Your task to perform on an android device: open device folders in google photos Image 0: 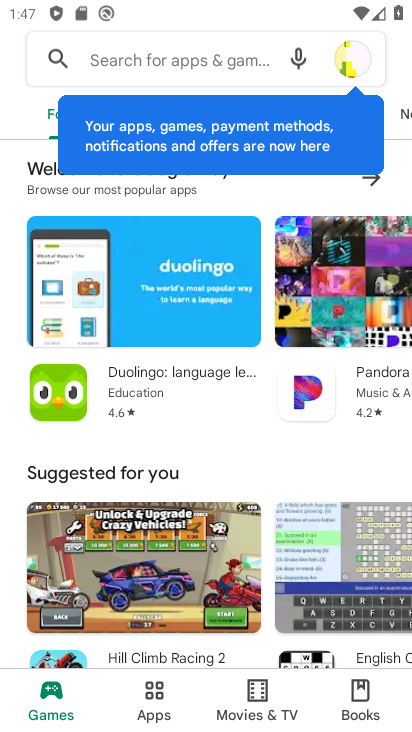
Step 0: press back button
Your task to perform on an android device: open device folders in google photos Image 1: 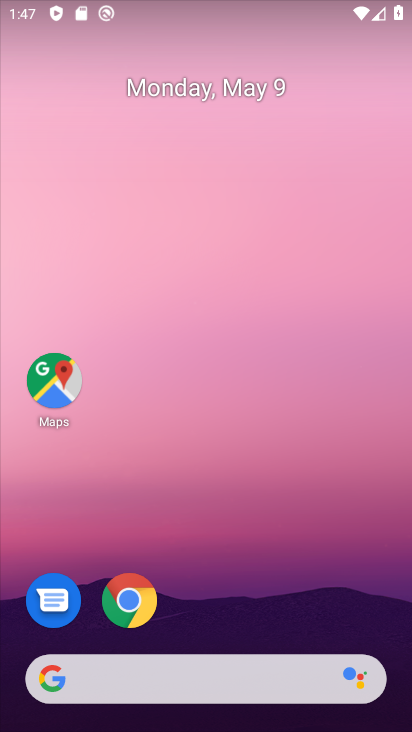
Step 1: drag from (234, 537) to (159, 49)
Your task to perform on an android device: open device folders in google photos Image 2: 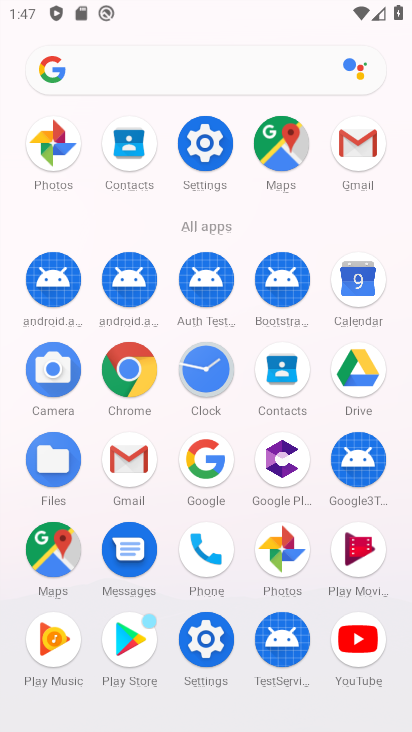
Step 2: click (279, 550)
Your task to perform on an android device: open device folders in google photos Image 3: 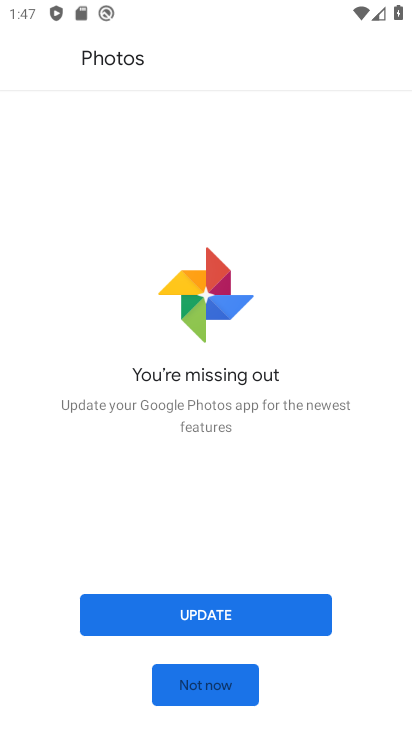
Step 3: click (214, 690)
Your task to perform on an android device: open device folders in google photos Image 4: 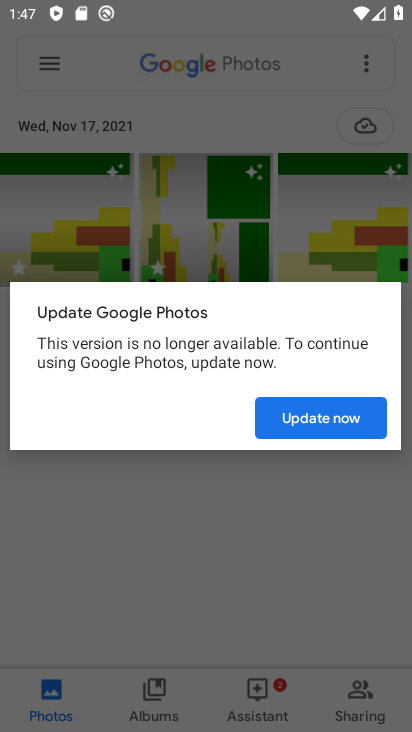
Step 4: click (347, 405)
Your task to perform on an android device: open device folders in google photos Image 5: 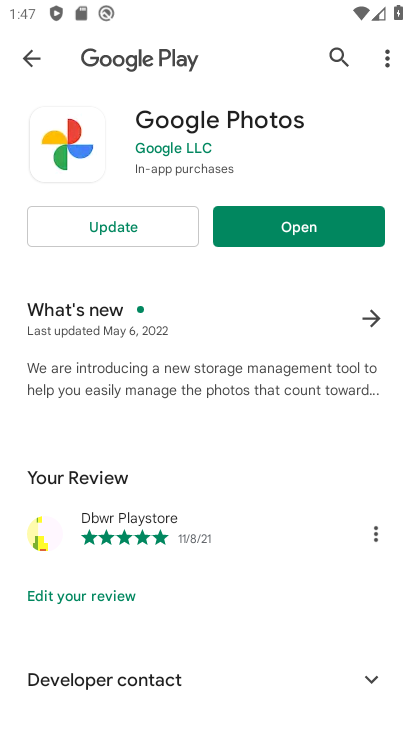
Step 5: click (133, 232)
Your task to perform on an android device: open device folders in google photos Image 6: 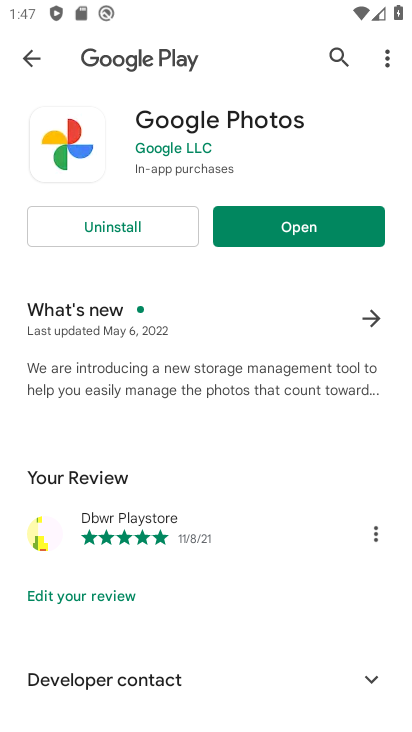
Step 6: click (262, 226)
Your task to perform on an android device: open device folders in google photos Image 7: 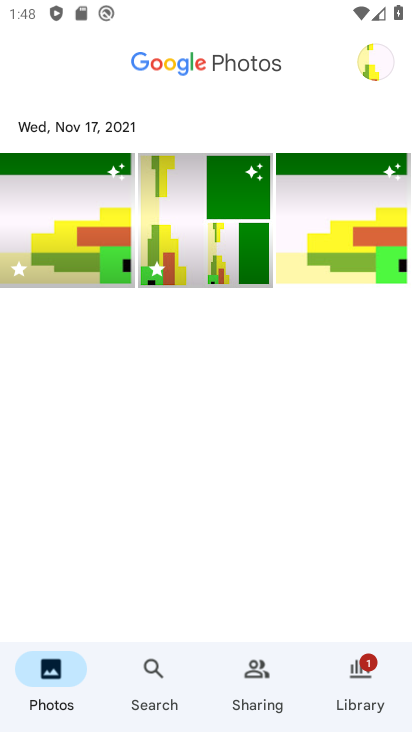
Step 7: click (353, 687)
Your task to perform on an android device: open device folders in google photos Image 8: 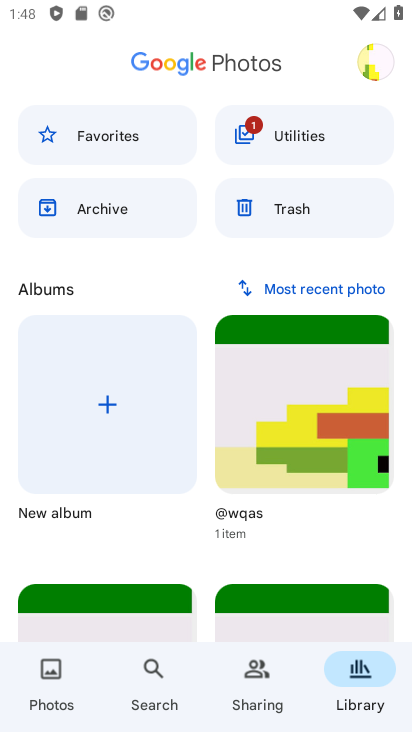
Step 8: click (50, 683)
Your task to perform on an android device: open device folders in google photos Image 9: 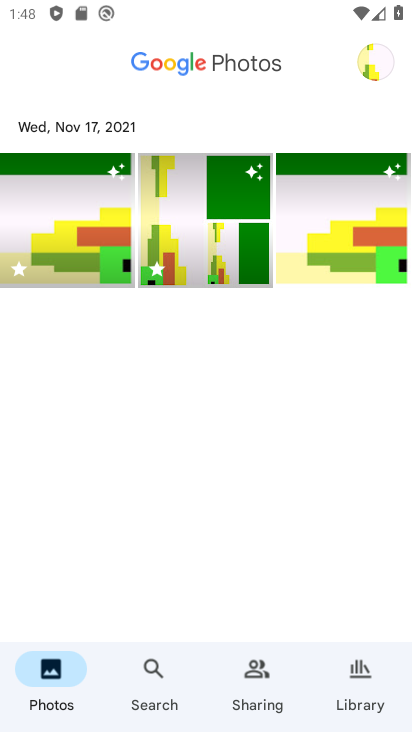
Step 9: click (377, 52)
Your task to perform on an android device: open device folders in google photos Image 10: 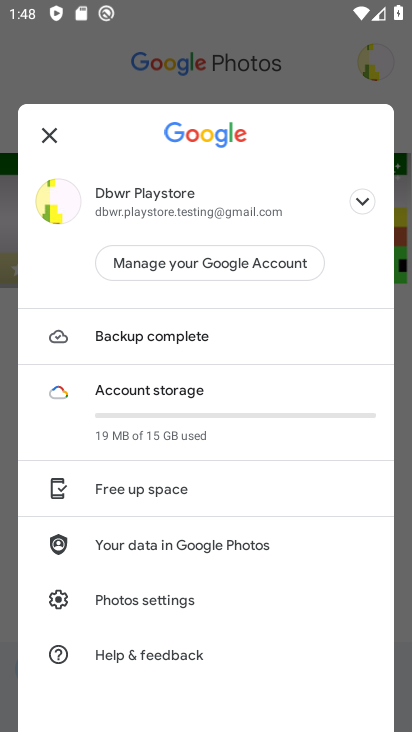
Step 10: click (354, 208)
Your task to perform on an android device: open device folders in google photos Image 11: 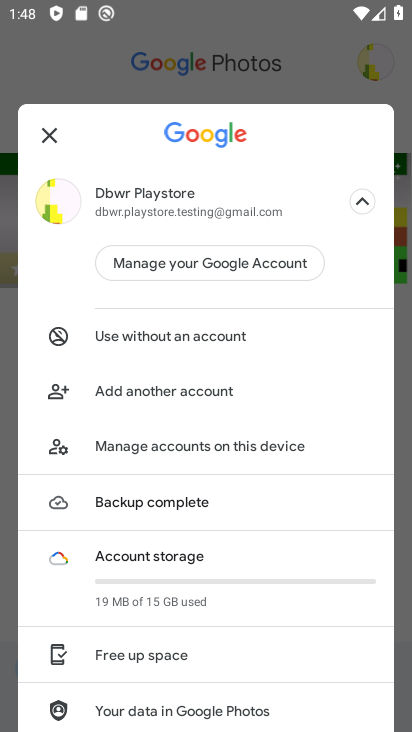
Step 11: click (354, 208)
Your task to perform on an android device: open device folders in google photos Image 12: 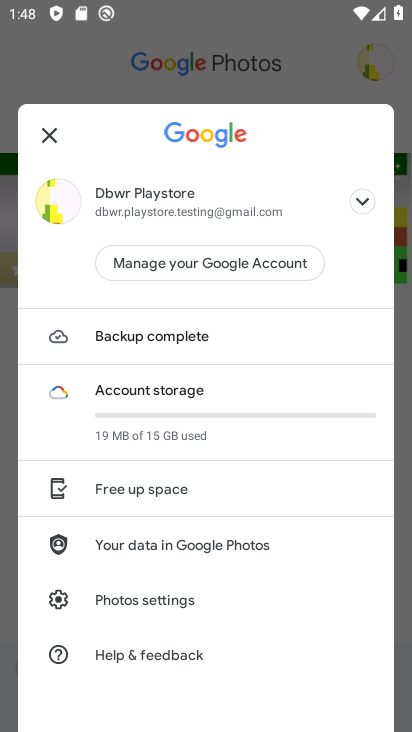
Step 12: click (171, 603)
Your task to perform on an android device: open device folders in google photos Image 13: 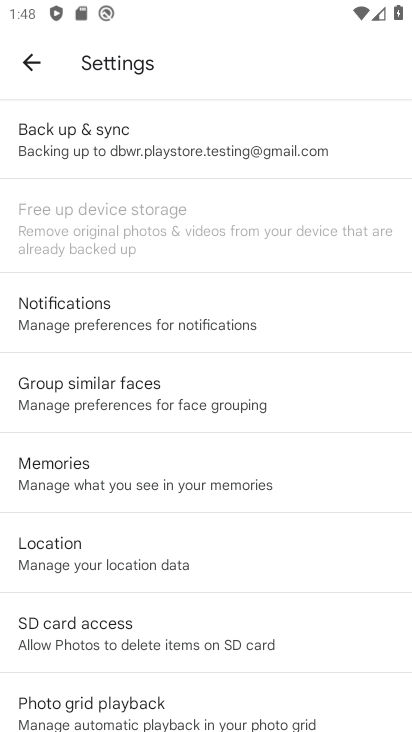
Step 13: drag from (266, 498) to (285, 154)
Your task to perform on an android device: open device folders in google photos Image 14: 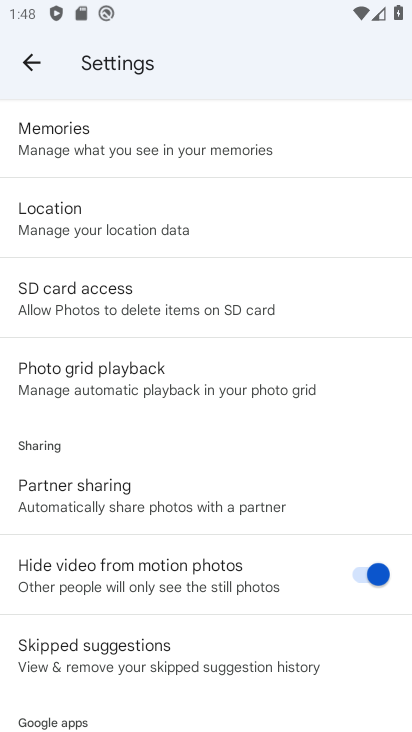
Step 14: click (169, 305)
Your task to perform on an android device: open device folders in google photos Image 15: 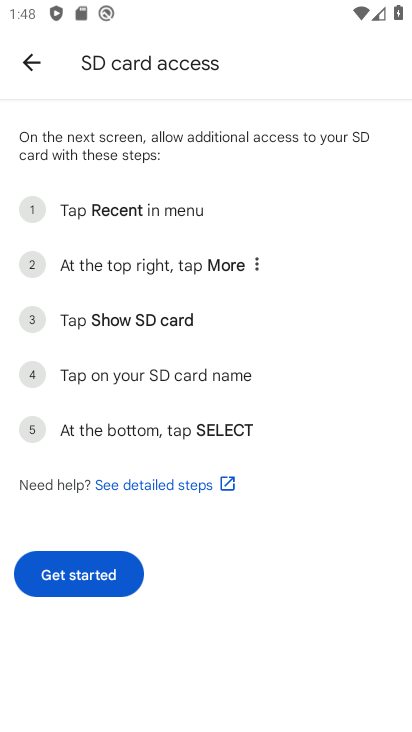
Step 15: click (22, 53)
Your task to perform on an android device: open device folders in google photos Image 16: 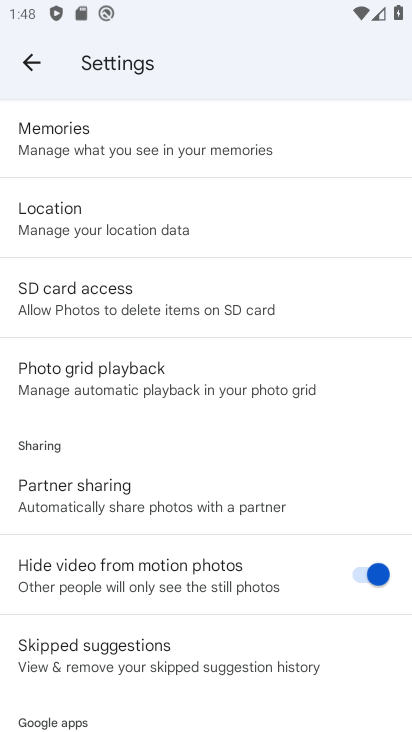
Step 16: drag from (137, 500) to (212, 114)
Your task to perform on an android device: open device folders in google photos Image 17: 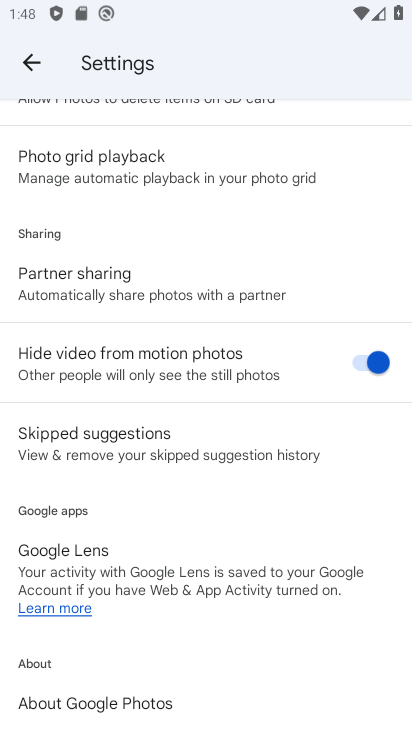
Step 17: drag from (242, 489) to (231, 128)
Your task to perform on an android device: open device folders in google photos Image 18: 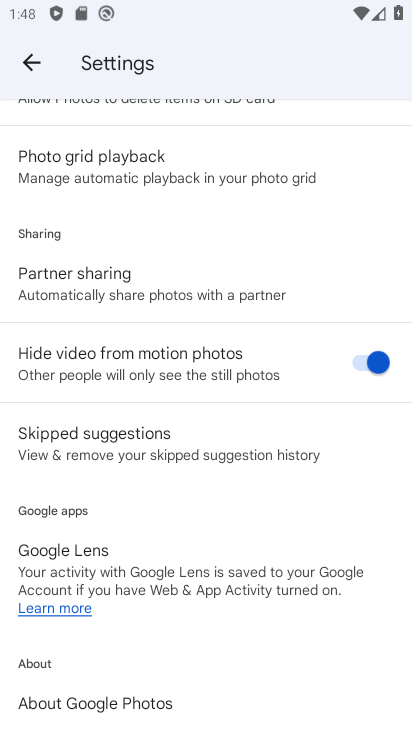
Step 18: drag from (150, 477) to (206, 31)
Your task to perform on an android device: open device folders in google photos Image 19: 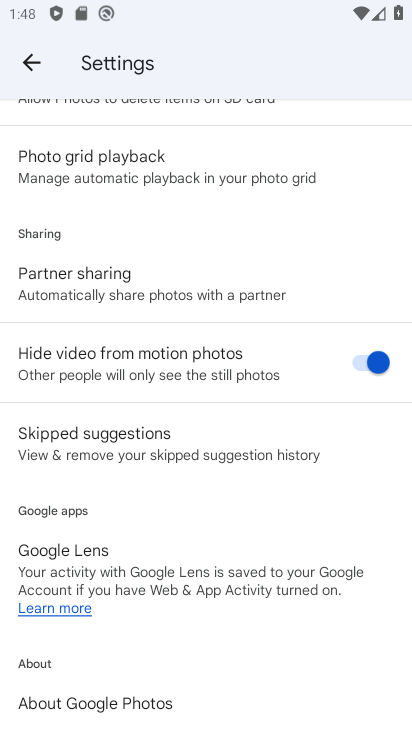
Step 19: click (24, 55)
Your task to perform on an android device: open device folders in google photos Image 20: 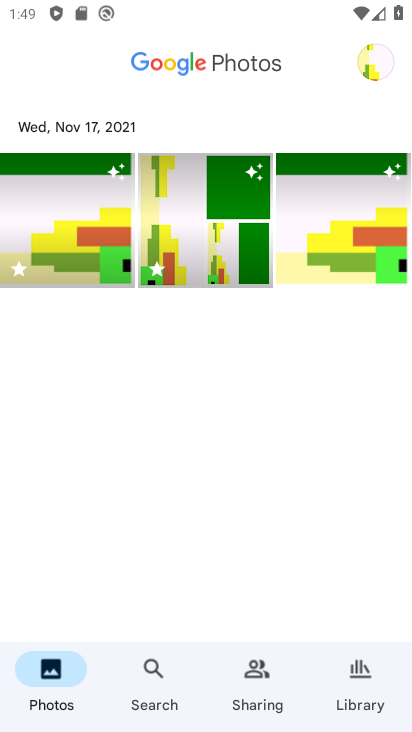
Step 20: click (268, 687)
Your task to perform on an android device: open device folders in google photos Image 21: 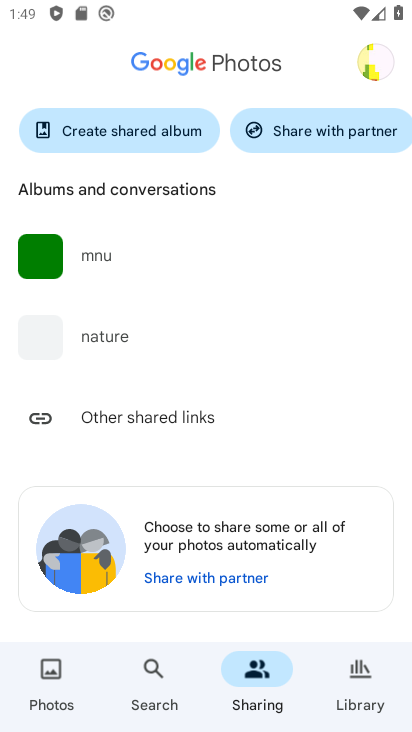
Step 21: click (363, 664)
Your task to perform on an android device: open device folders in google photos Image 22: 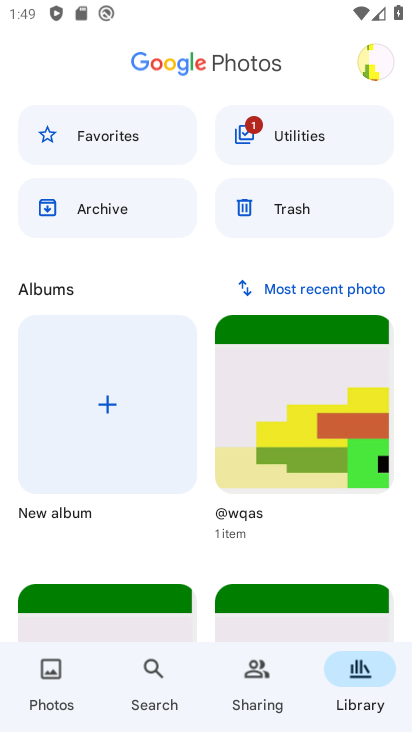
Step 22: click (53, 683)
Your task to perform on an android device: open device folders in google photos Image 23: 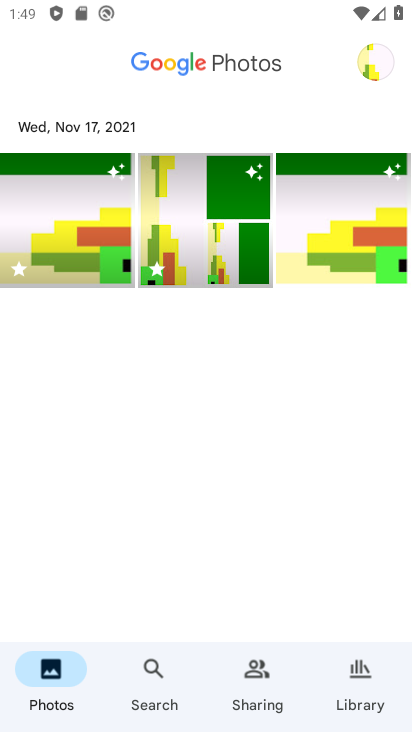
Step 23: task complete